Your task to perform on an android device: turn off translation in the chrome app Image 0: 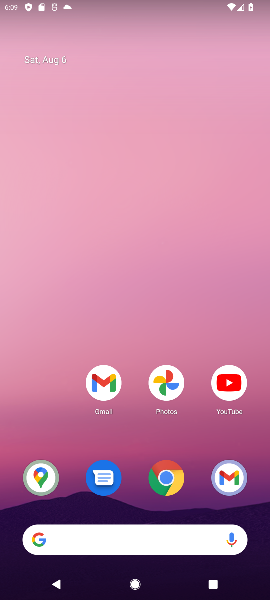
Step 0: press home button
Your task to perform on an android device: turn off translation in the chrome app Image 1: 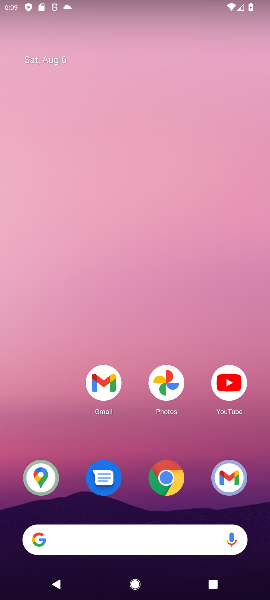
Step 1: click (173, 480)
Your task to perform on an android device: turn off translation in the chrome app Image 2: 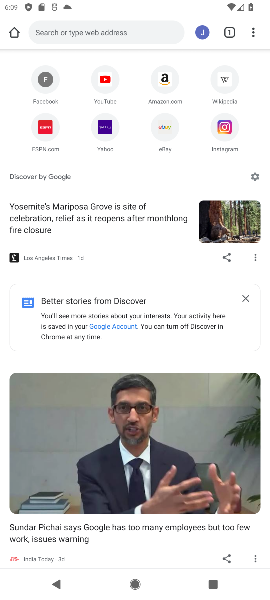
Step 2: drag from (253, 29) to (146, 322)
Your task to perform on an android device: turn off translation in the chrome app Image 3: 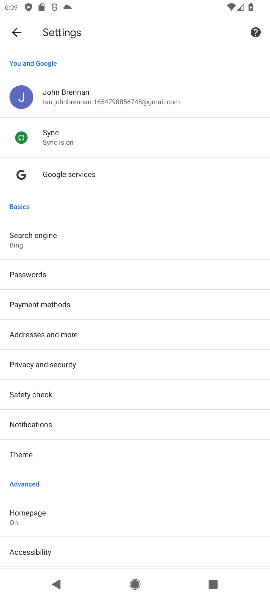
Step 3: drag from (115, 498) to (78, 98)
Your task to perform on an android device: turn off translation in the chrome app Image 4: 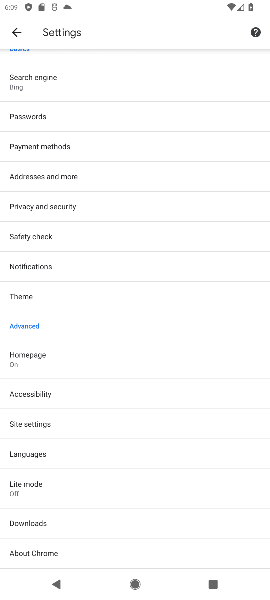
Step 4: click (31, 454)
Your task to perform on an android device: turn off translation in the chrome app Image 5: 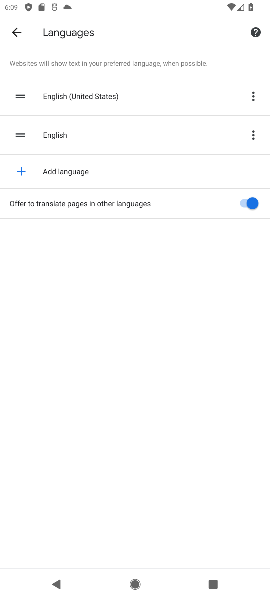
Step 5: click (250, 200)
Your task to perform on an android device: turn off translation in the chrome app Image 6: 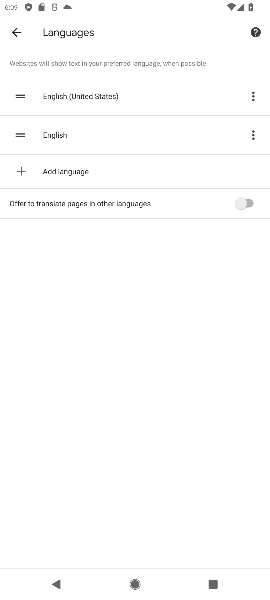
Step 6: task complete